Your task to perform on an android device: turn on priority inbox in the gmail app Image 0: 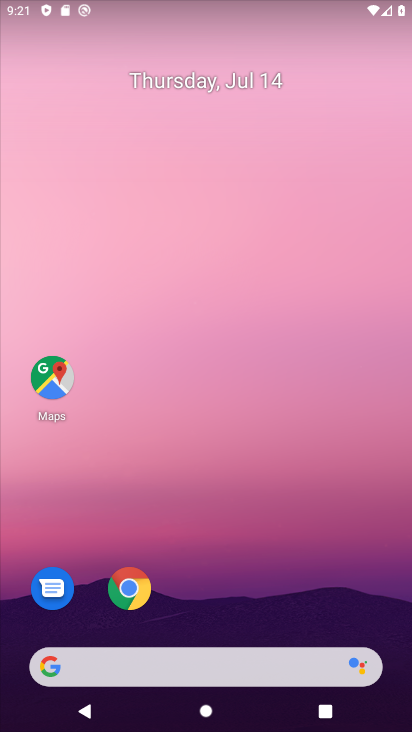
Step 0: drag from (228, 599) to (288, 11)
Your task to perform on an android device: turn on priority inbox in the gmail app Image 1: 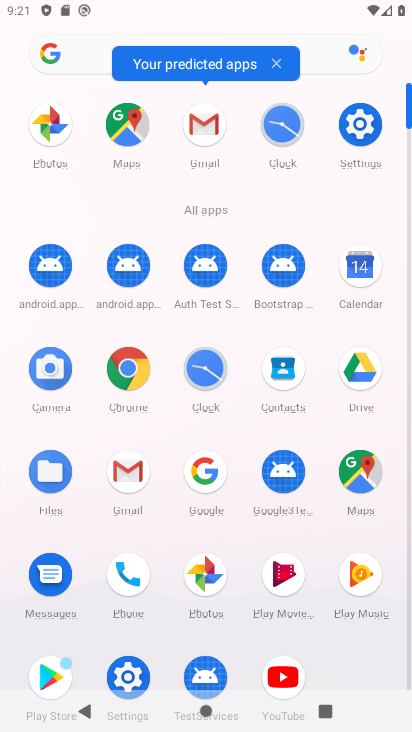
Step 1: click (210, 115)
Your task to perform on an android device: turn on priority inbox in the gmail app Image 2: 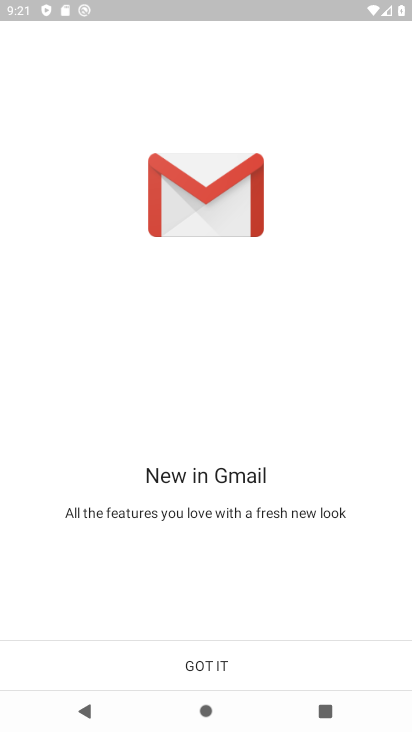
Step 2: click (212, 641)
Your task to perform on an android device: turn on priority inbox in the gmail app Image 3: 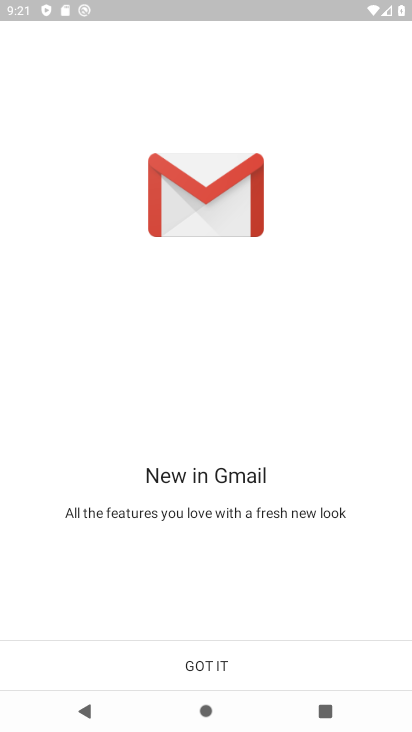
Step 3: click (210, 666)
Your task to perform on an android device: turn on priority inbox in the gmail app Image 4: 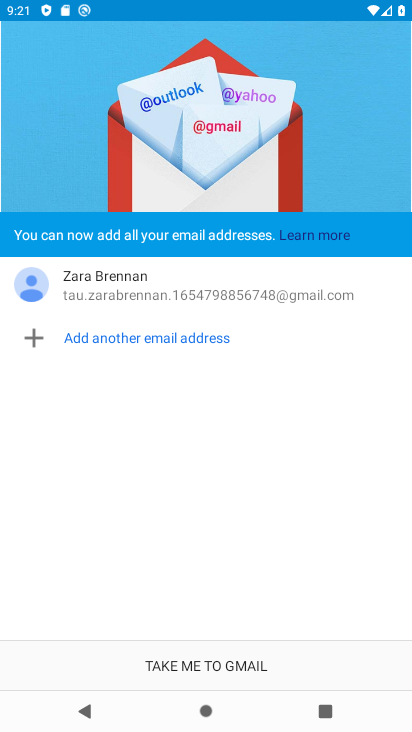
Step 4: click (210, 666)
Your task to perform on an android device: turn on priority inbox in the gmail app Image 5: 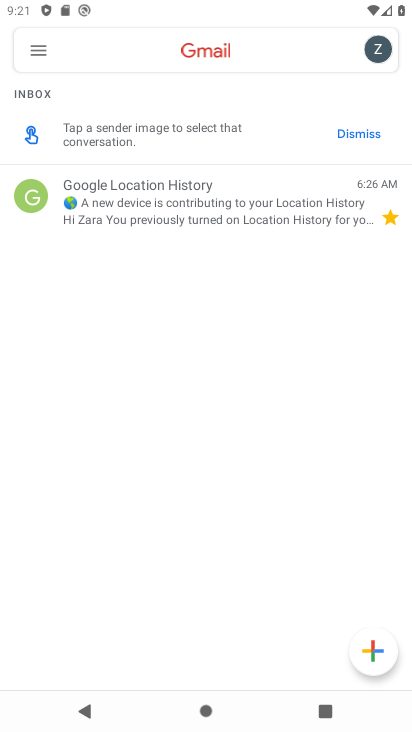
Step 5: click (40, 48)
Your task to perform on an android device: turn on priority inbox in the gmail app Image 6: 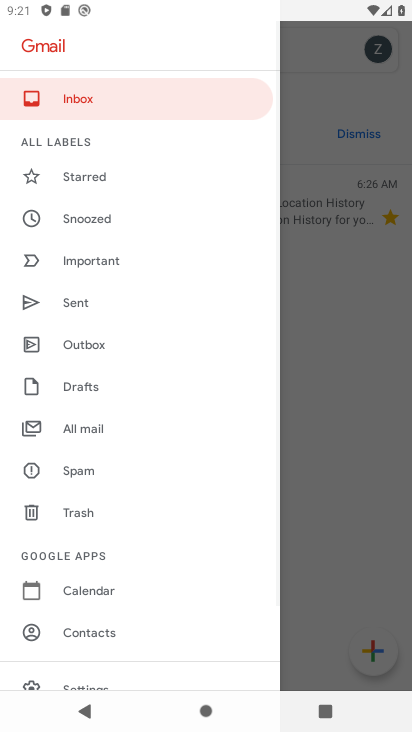
Step 6: drag from (111, 667) to (166, 391)
Your task to perform on an android device: turn on priority inbox in the gmail app Image 7: 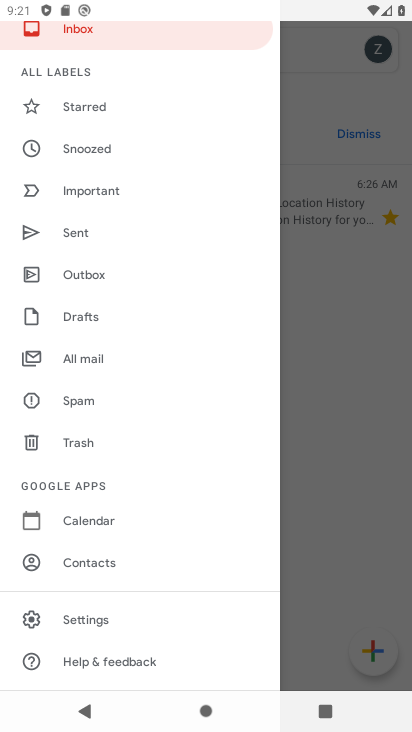
Step 7: click (109, 615)
Your task to perform on an android device: turn on priority inbox in the gmail app Image 8: 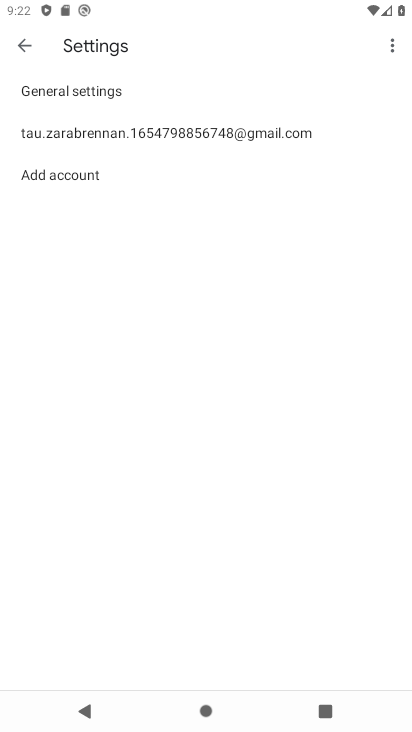
Step 8: click (142, 139)
Your task to perform on an android device: turn on priority inbox in the gmail app Image 9: 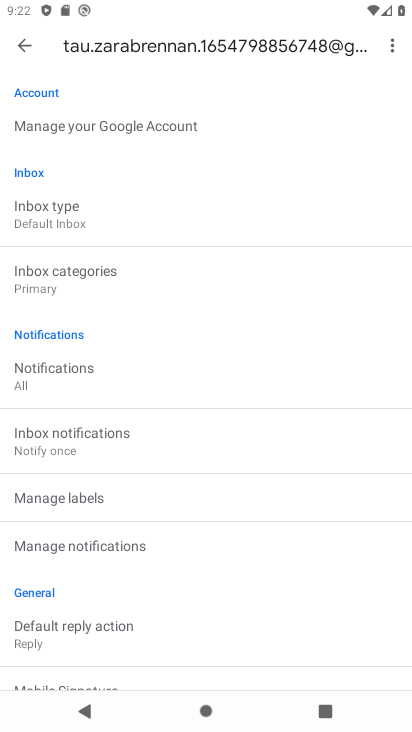
Step 9: click (85, 201)
Your task to perform on an android device: turn on priority inbox in the gmail app Image 10: 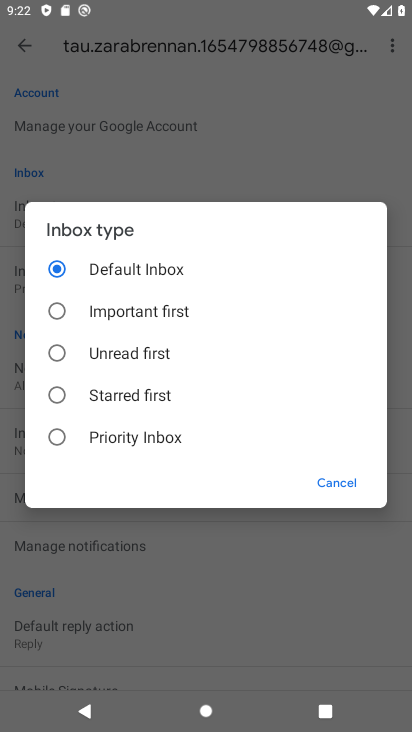
Step 10: click (55, 433)
Your task to perform on an android device: turn on priority inbox in the gmail app Image 11: 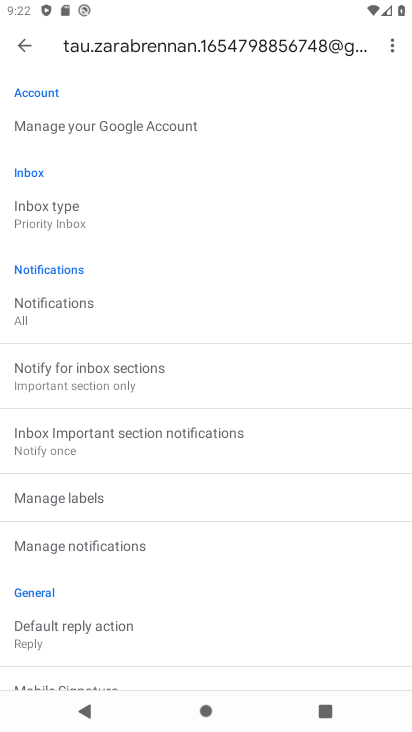
Step 11: task complete